Your task to perform on an android device: turn pop-ups on in chrome Image 0: 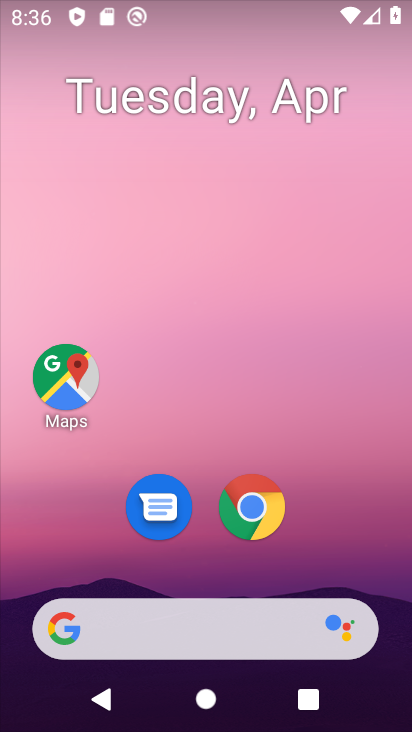
Step 0: click (198, 171)
Your task to perform on an android device: turn pop-ups on in chrome Image 1: 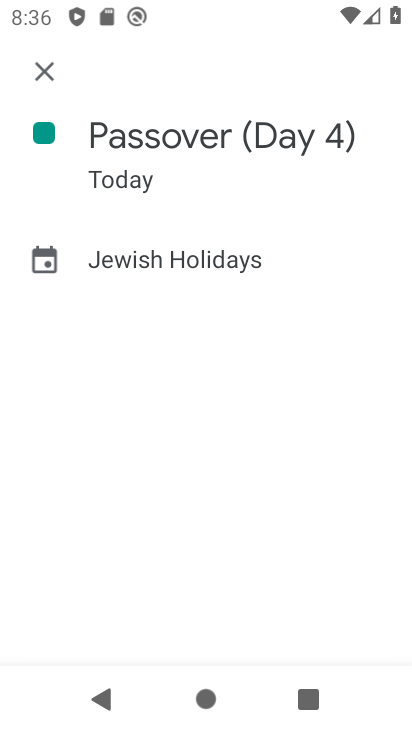
Step 1: press home button
Your task to perform on an android device: turn pop-ups on in chrome Image 2: 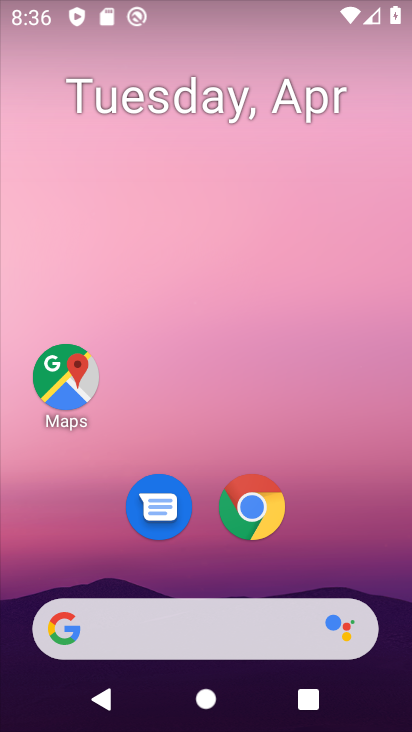
Step 2: click (203, 579)
Your task to perform on an android device: turn pop-ups on in chrome Image 3: 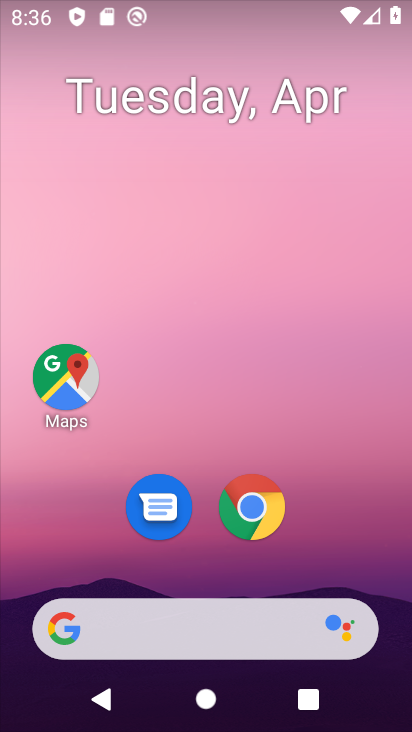
Step 3: click (259, 513)
Your task to perform on an android device: turn pop-ups on in chrome Image 4: 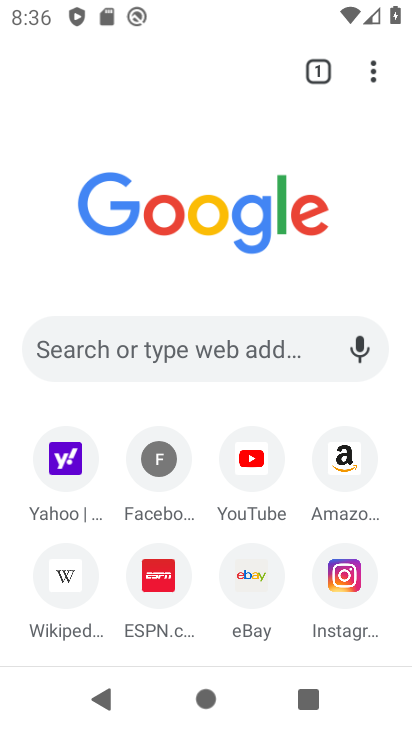
Step 4: drag from (370, 72) to (127, 488)
Your task to perform on an android device: turn pop-ups on in chrome Image 5: 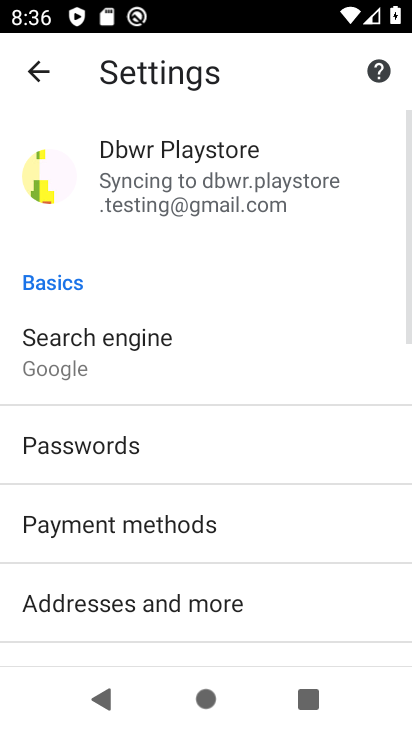
Step 5: drag from (214, 615) to (214, 160)
Your task to perform on an android device: turn pop-ups on in chrome Image 6: 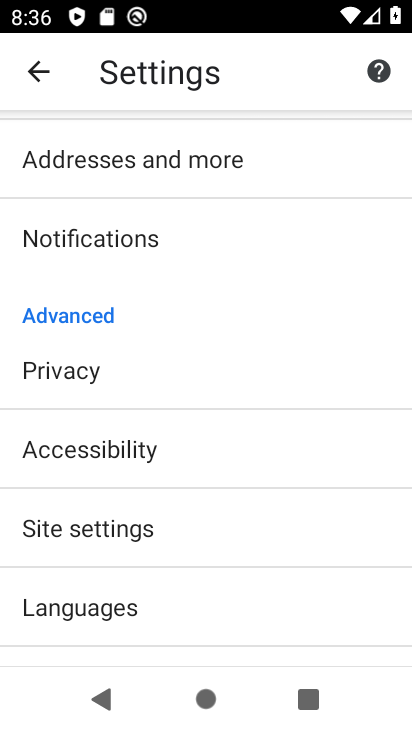
Step 6: click (174, 546)
Your task to perform on an android device: turn pop-ups on in chrome Image 7: 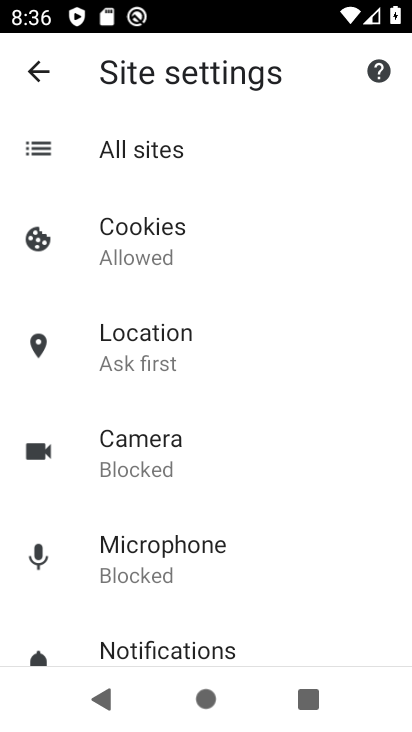
Step 7: drag from (215, 605) to (206, 250)
Your task to perform on an android device: turn pop-ups on in chrome Image 8: 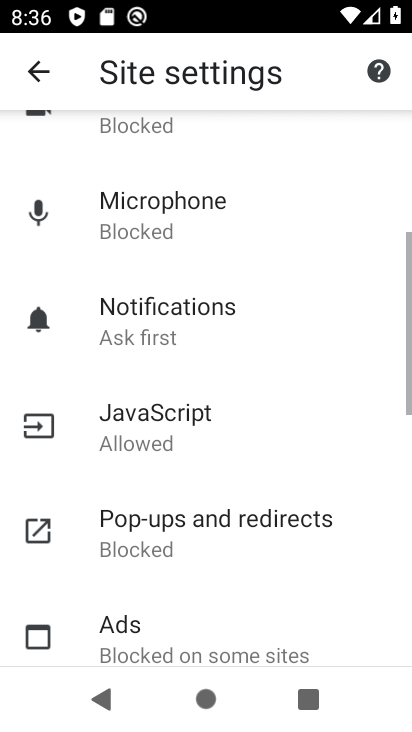
Step 8: click (217, 508)
Your task to perform on an android device: turn pop-ups on in chrome Image 9: 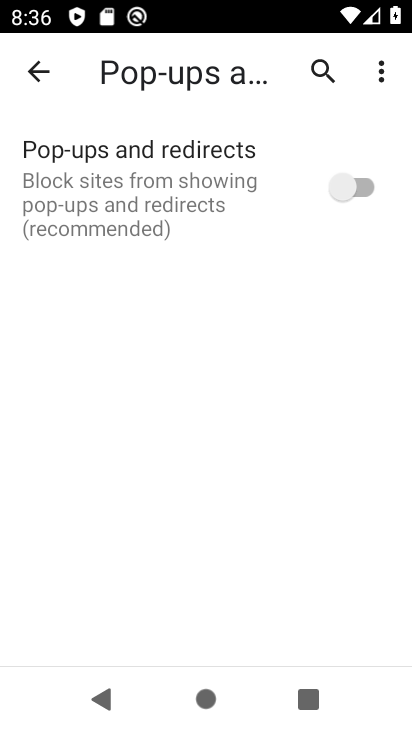
Step 9: click (361, 175)
Your task to perform on an android device: turn pop-ups on in chrome Image 10: 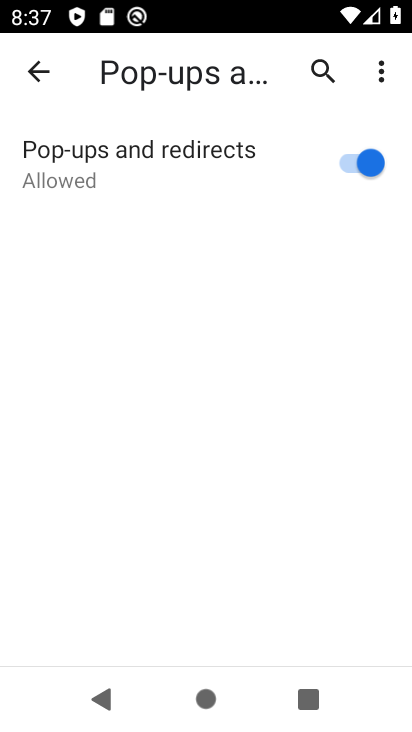
Step 10: task complete